Your task to perform on an android device: Show me recent news Image 0: 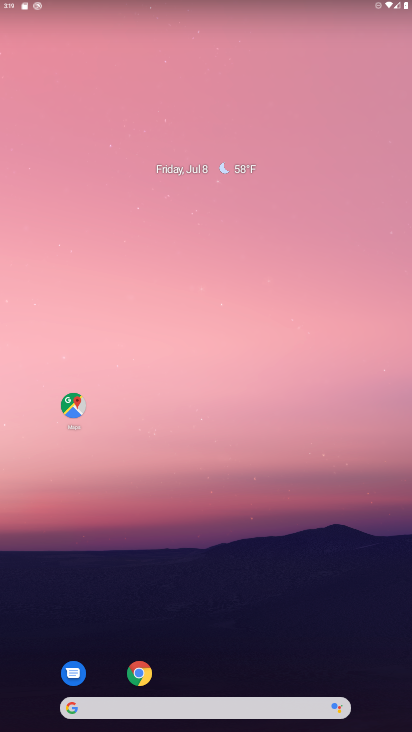
Step 0: drag from (178, 637) to (234, 384)
Your task to perform on an android device: Show me recent news Image 1: 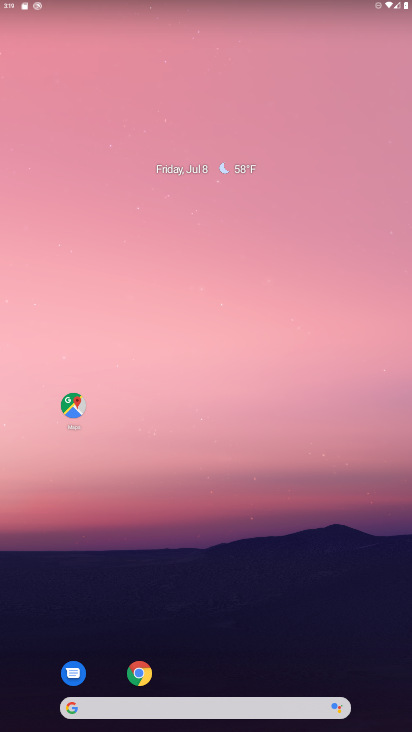
Step 1: drag from (254, 688) to (247, 341)
Your task to perform on an android device: Show me recent news Image 2: 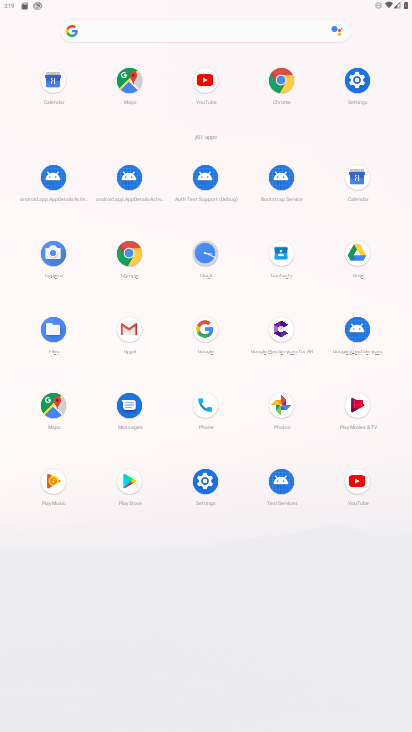
Step 2: click (210, 332)
Your task to perform on an android device: Show me recent news Image 3: 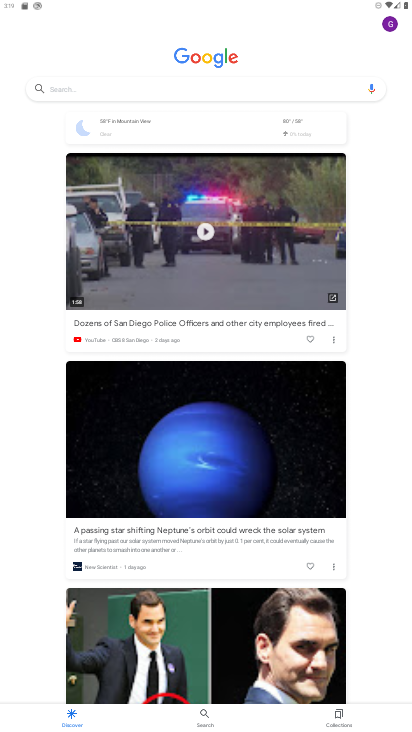
Step 3: click (141, 89)
Your task to perform on an android device: Show me recent news Image 4: 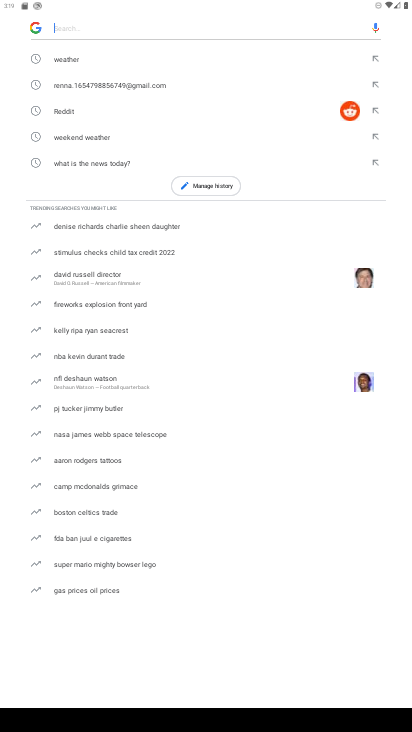
Step 4: type "recent news"
Your task to perform on an android device: Show me recent news Image 5: 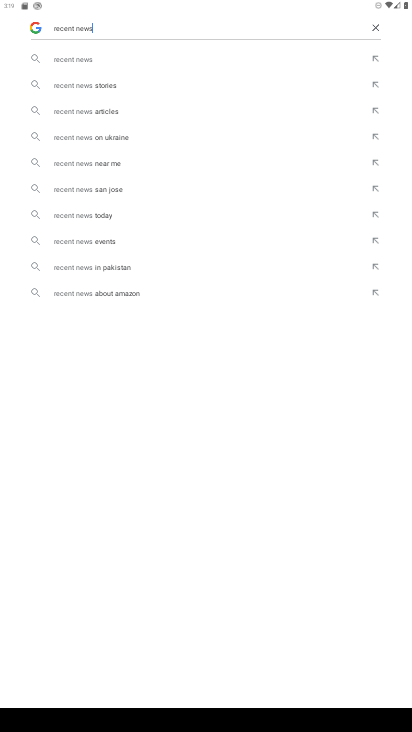
Step 5: click (77, 63)
Your task to perform on an android device: Show me recent news Image 6: 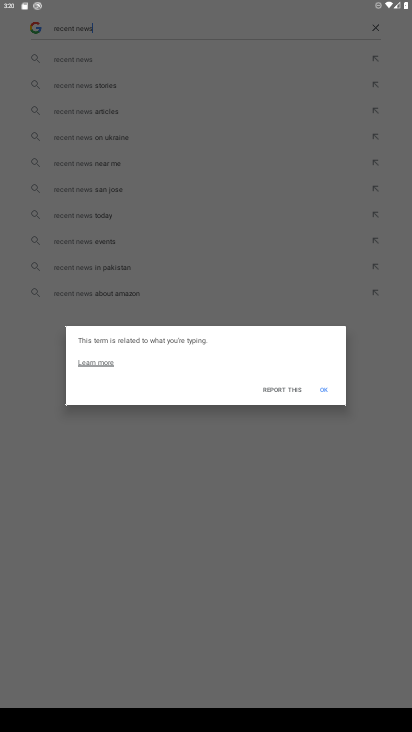
Step 6: click (320, 386)
Your task to perform on an android device: Show me recent news Image 7: 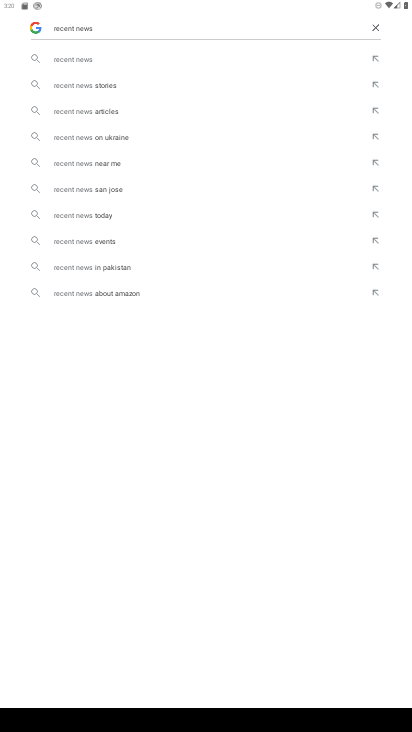
Step 7: click (77, 62)
Your task to perform on an android device: Show me recent news Image 8: 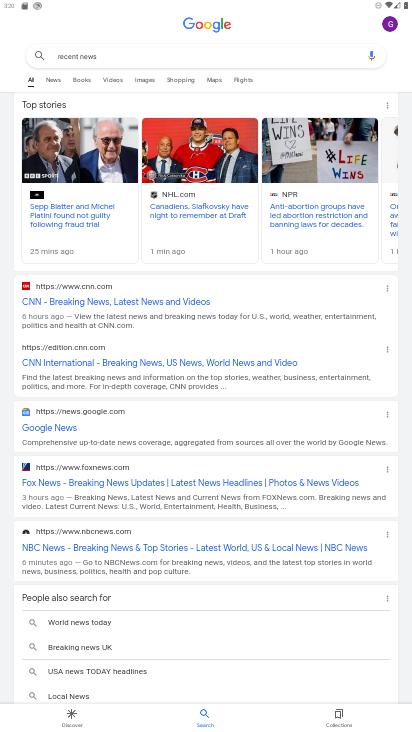
Step 8: task complete